Your task to perform on an android device: Turn on the flashlight Image 0: 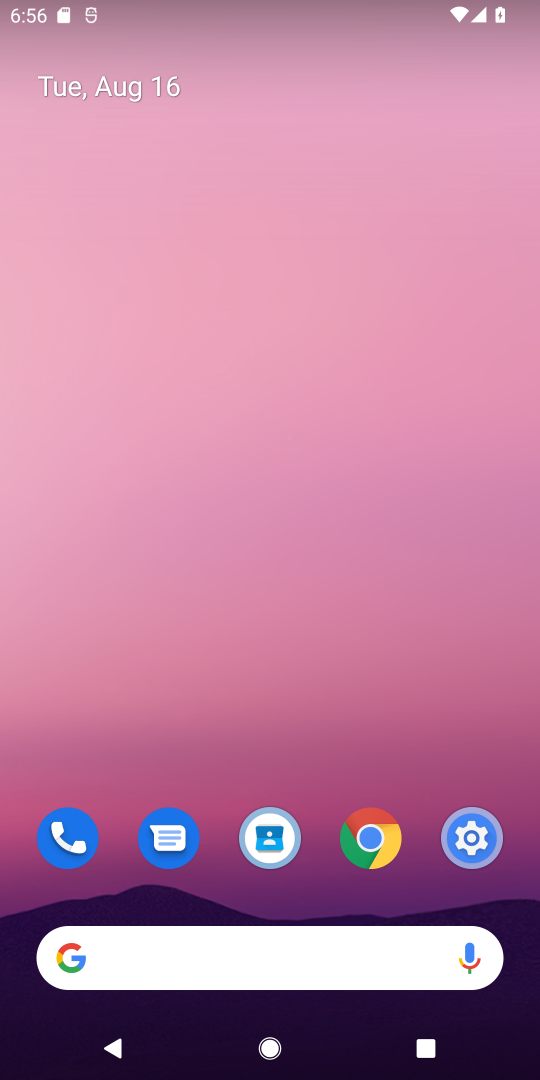
Step 0: press home button
Your task to perform on an android device: Turn on the flashlight Image 1: 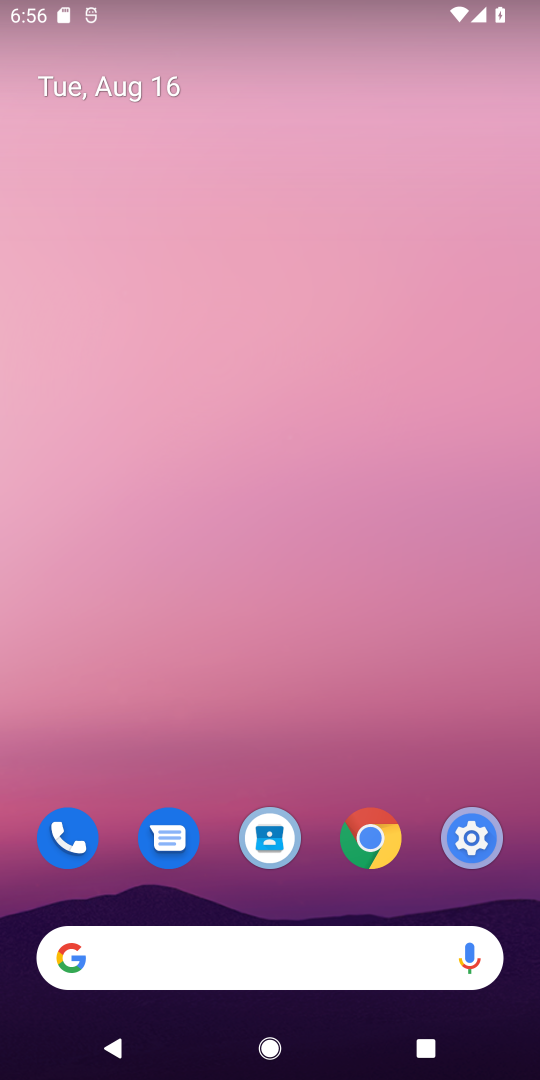
Step 1: drag from (321, 888) to (368, 66)
Your task to perform on an android device: Turn on the flashlight Image 2: 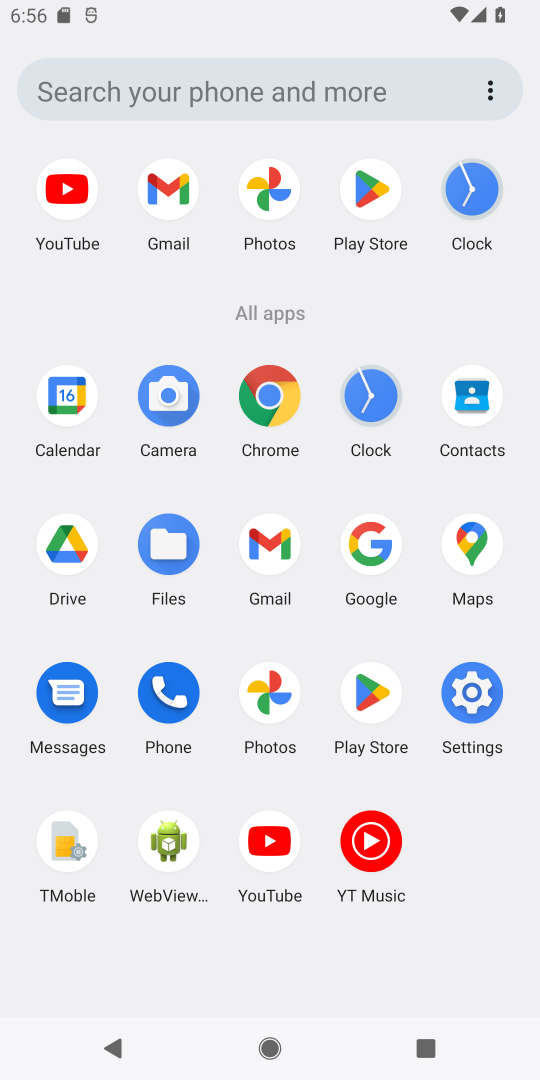
Step 2: click (467, 683)
Your task to perform on an android device: Turn on the flashlight Image 3: 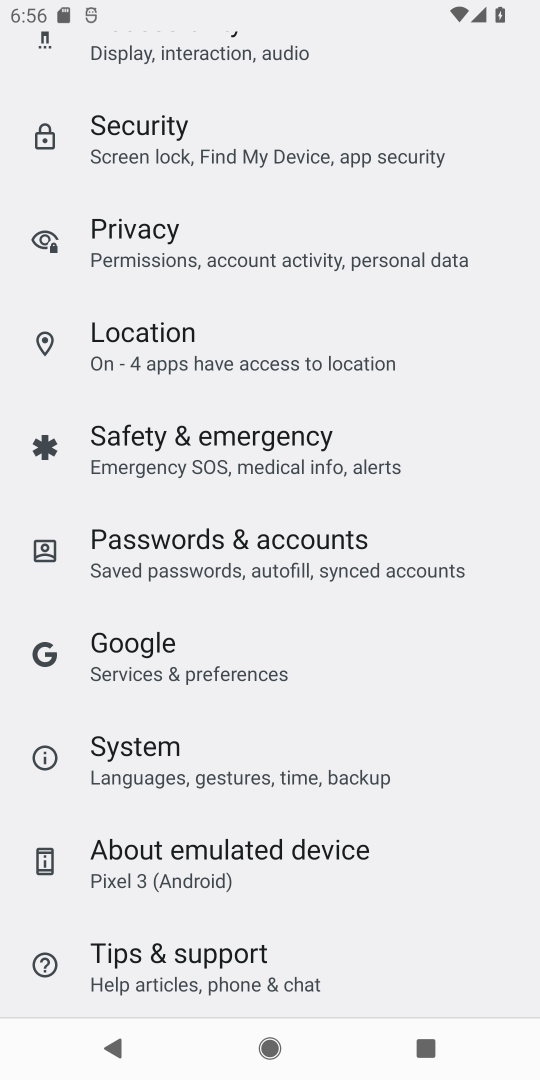
Step 3: drag from (211, 153) to (256, 931)
Your task to perform on an android device: Turn on the flashlight Image 4: 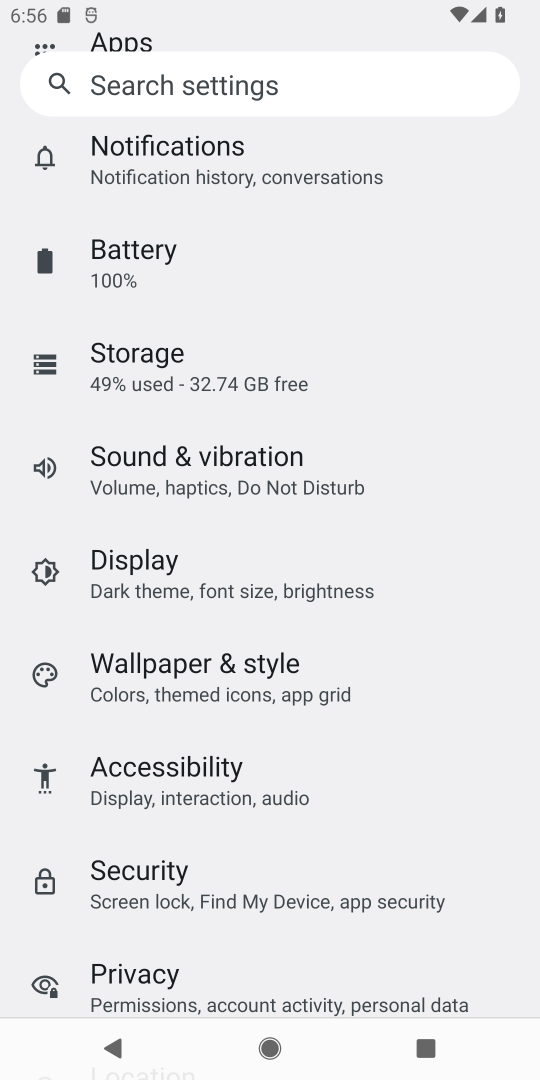
Step 4: click (174, 76)
Your task to perform on an android device: Turn on the flashlight Image 5: 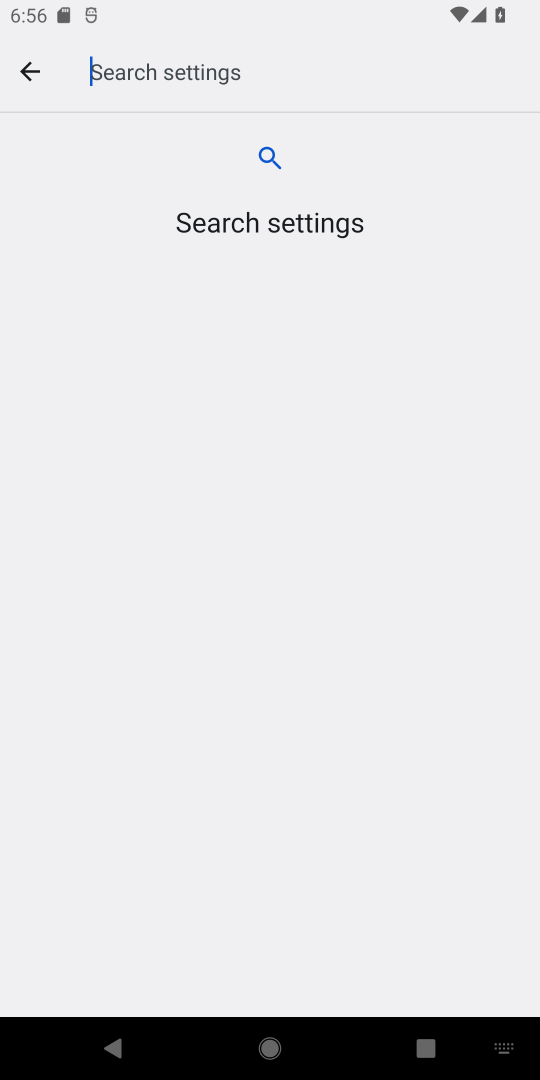
Step 5: type "flashlight"
Your task to perform on an android device: Turn on the flashlight Image 6: 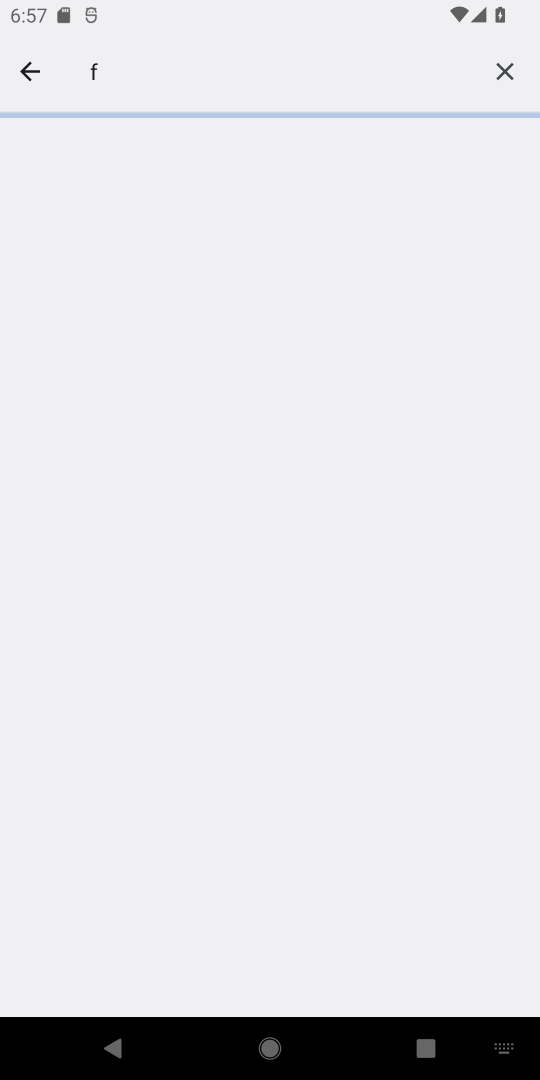
Step 6: click (502, 70)
Your task to perform on an android device: Turn on the flashlight Image 7: 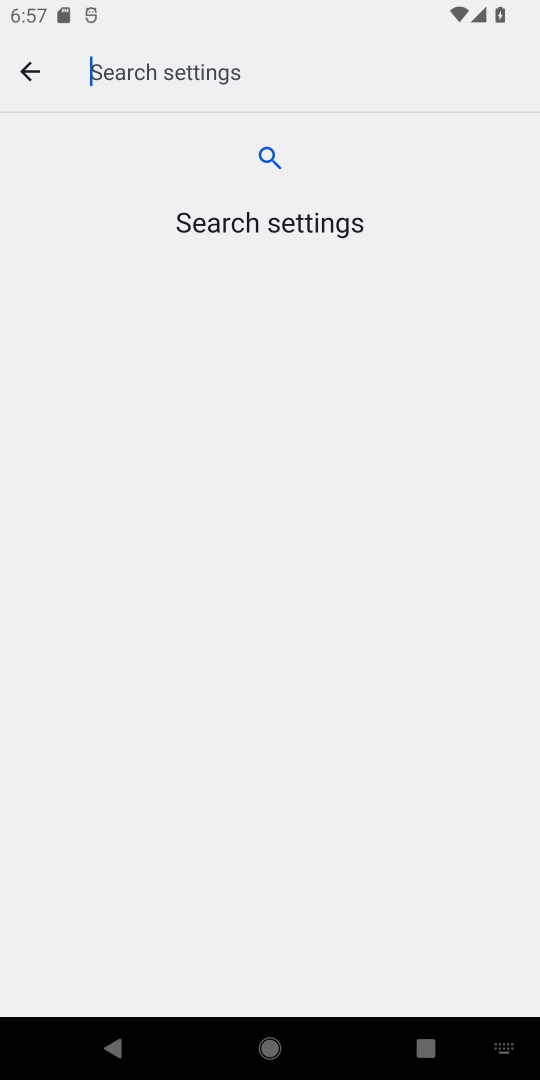
Step 7: type "flashlight"
Your task to perform on an android device: Turn on the flashlight Image 8: 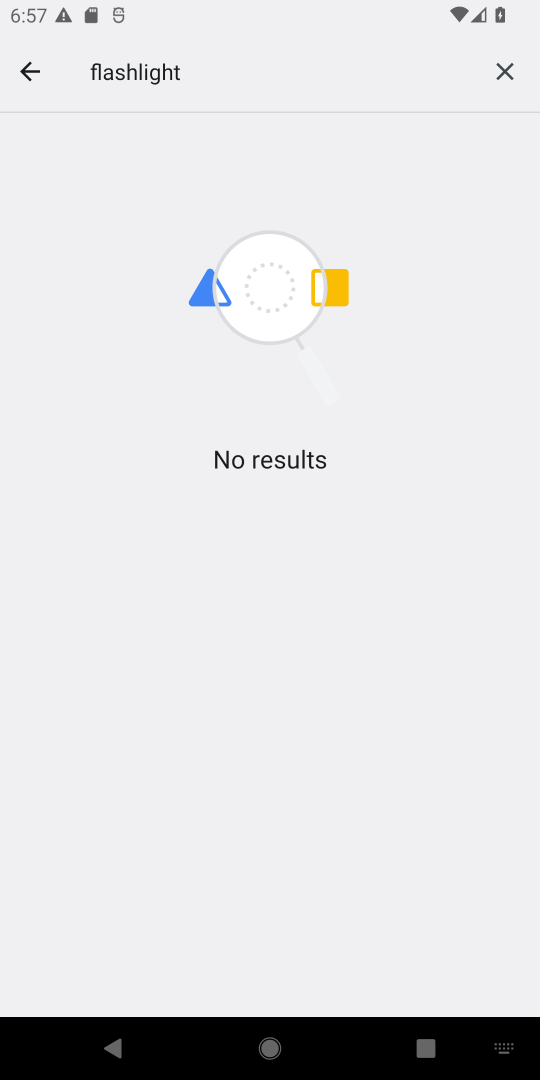
Step 8: task complete